Your task to perform on an android device: set an alarm Image 0: 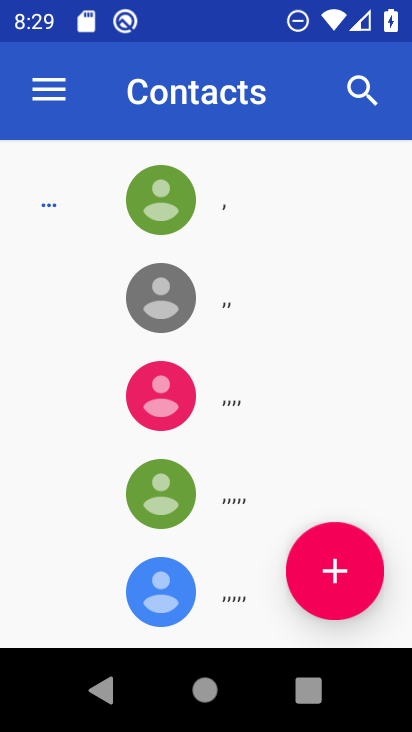
Step 0: press home button
Your task to perform on an android device: set an alarm Image 1: 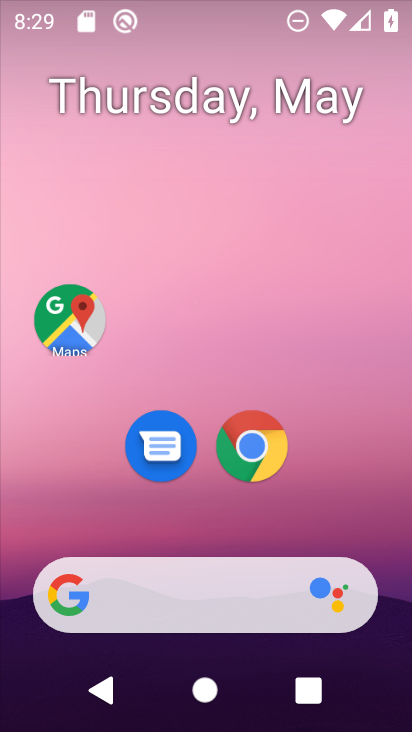
Step 1: drag from (346, 516) to (321, 48)
Your task to perform on an android device: set an alarm Image 2: 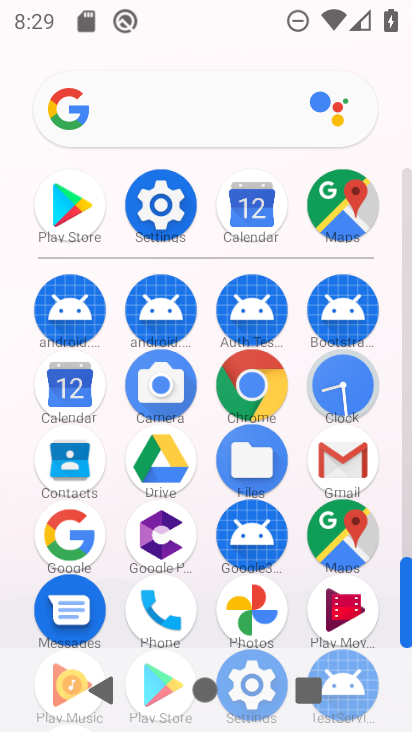
Step 2: click (341, 395)
Your task to perform on an android device: set an alarm Image 3: 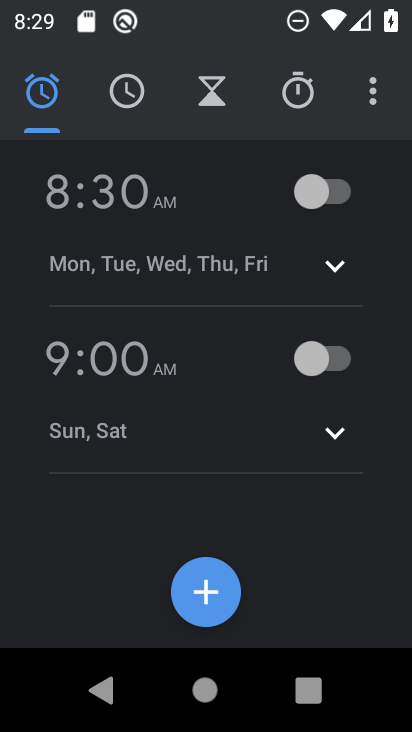
Step 3: click (207, 592)
Your task to perform on an android device: set an alarm Image 4: 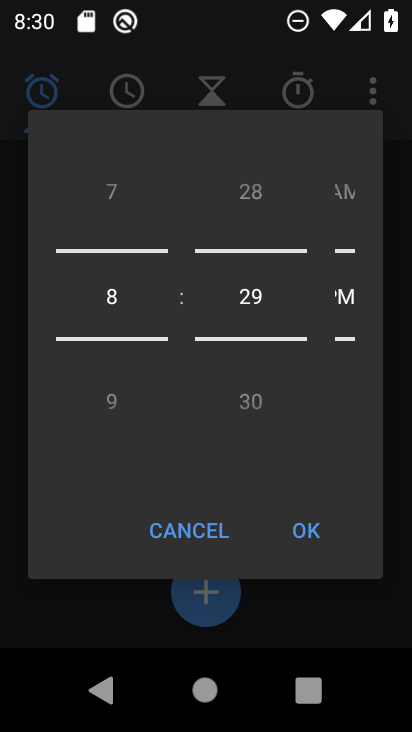
Step 4: click (308, 524)
Your task to perform on an android device: set an alarm Image 5: 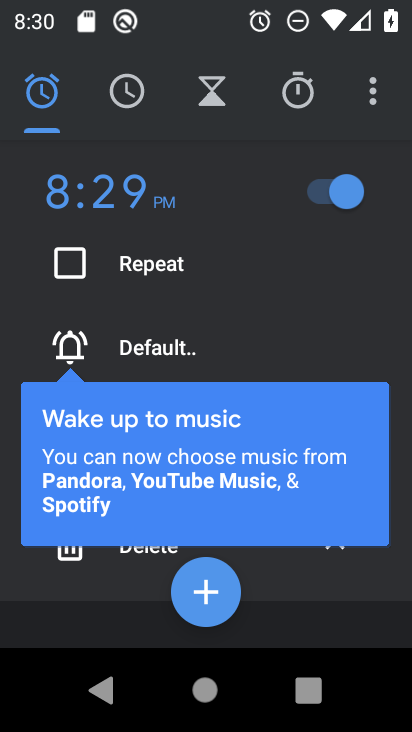
Step 5: task complete